Your task to perform on an android device: Go to battery settings Image 0: 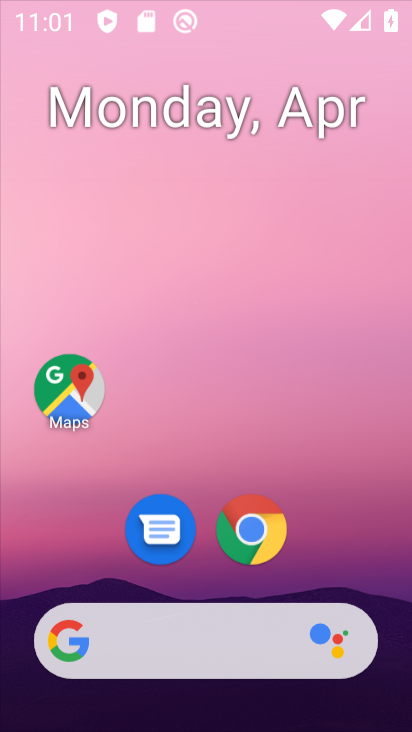
Step 0: click (232, 19)
Your task to perform on an android device: Go to battery settings Image 1: 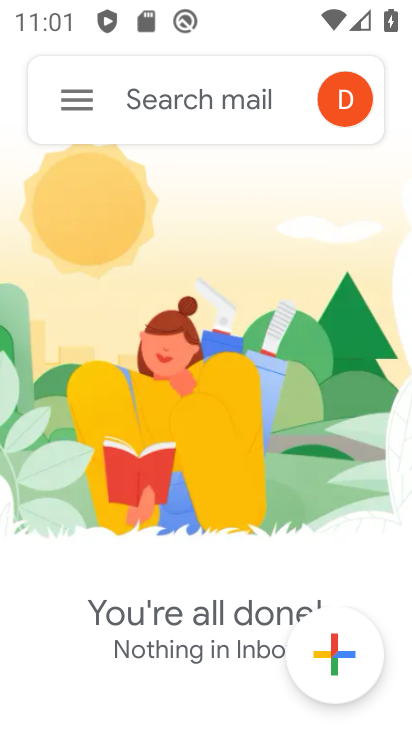
Step 1: press home button
Your task to perform on an android device: Go to battery settings Image 2: 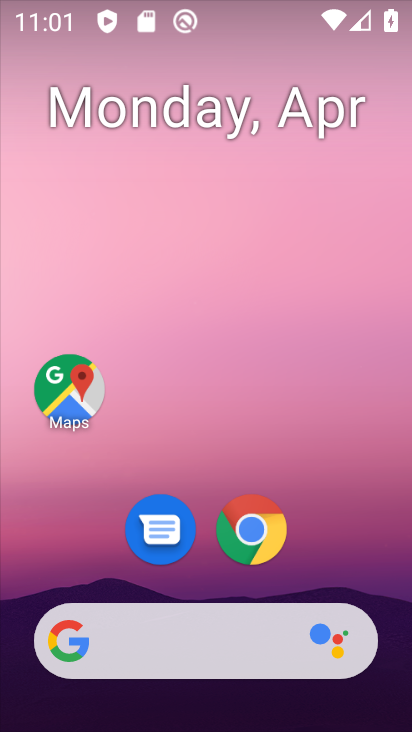
Step 2: drag from (382, 601) to (23, 81)
Your task to perform on an android device: Go to battery settings Image 3: 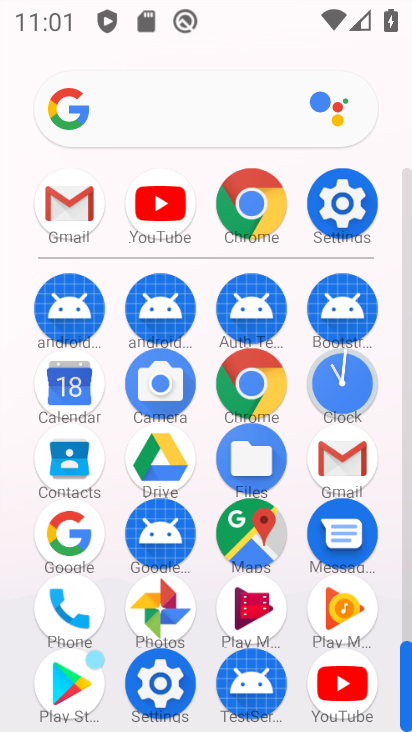
Step 3: click (342, 213)
Your task to perform on an android device: Go to battery settings Image 4: 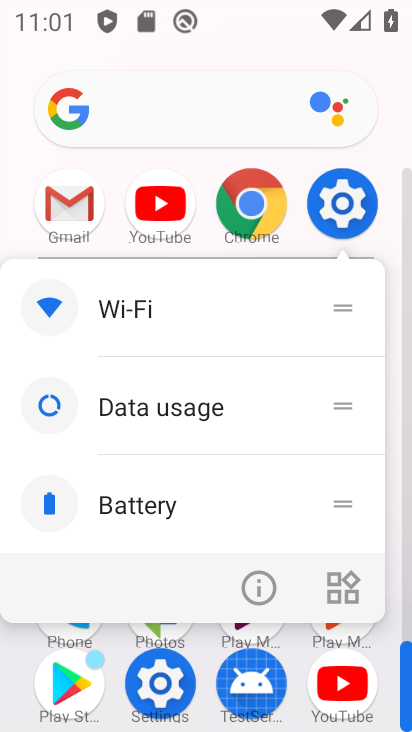
Step 4: click (342, 213)
Your task to perform on an android device: Go to battery settings Image 5: 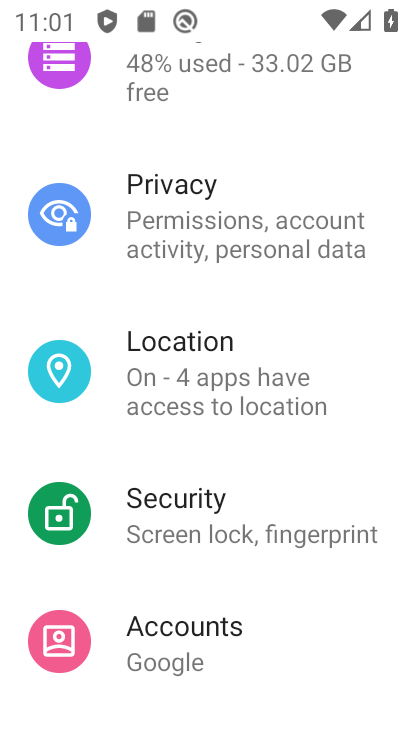
Step 5: drag from (233, 203) to (276, 578)
Your task to perform on an android device: Go to battery settings Image 6: 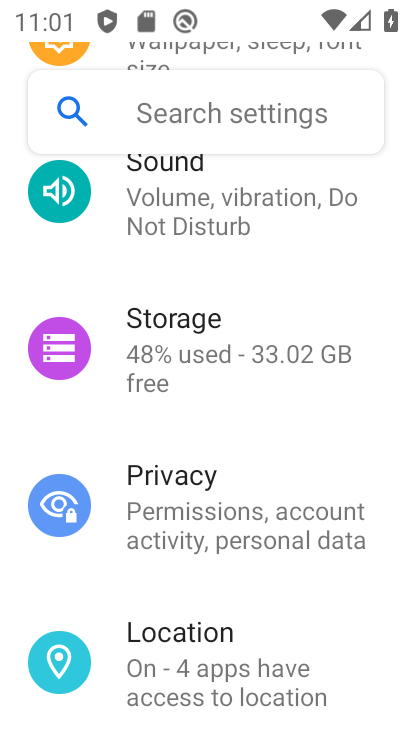
Step 6: drag from (218, 209) to (218, 666)
Your task to perform on an android device: Go to battery settings Image 7: 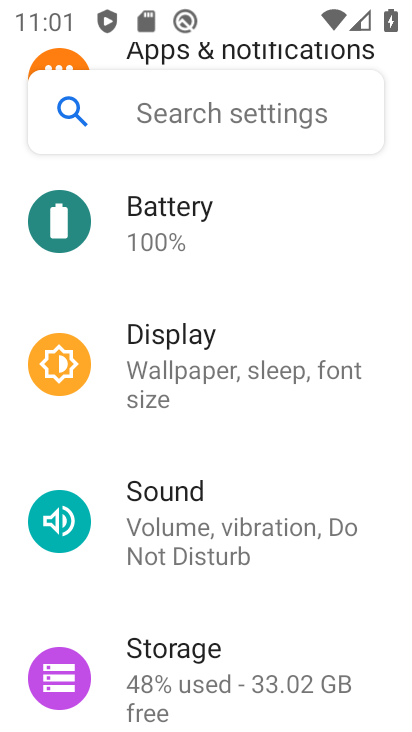
Step 7: click (148, 209)
Your task to perform on an android device: Go to battery settings Image 8: 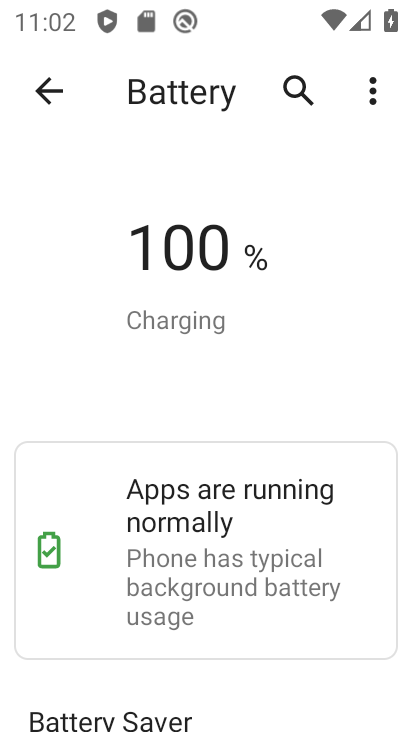
Step 8: task complete